Your task to perform on an android device: change notifications settings Image 0: 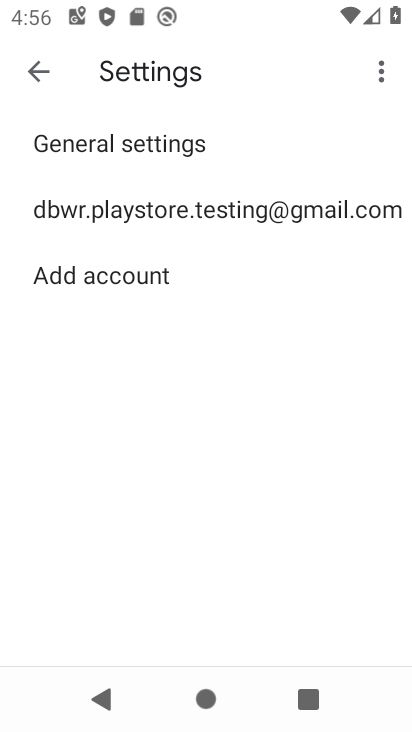
Step 0: press home button
Your task to perform on an android device: change notifications settings Image 1: 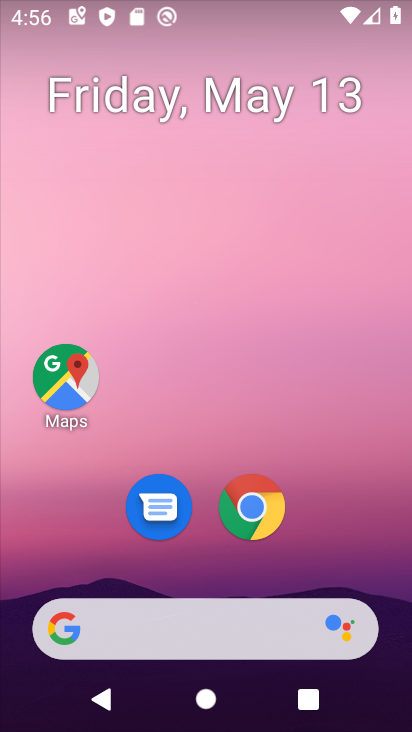
Step 1: drag from (332, 363) to (296, 43)
Your task to perform on an android device: change notifications settings Image 2: 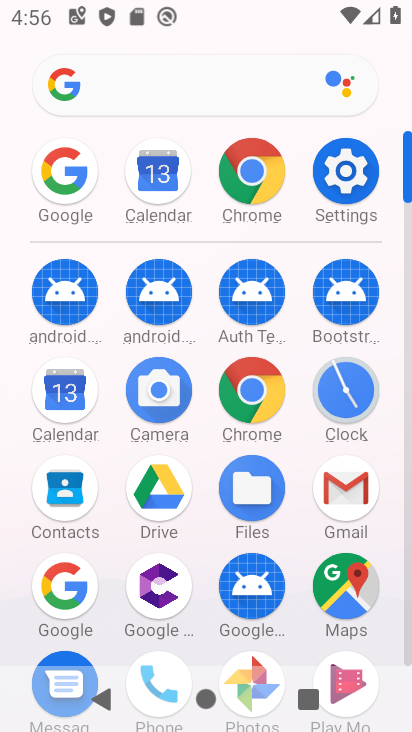
Step 2: click (347, 176)
Your task to perform on an android device: change notifications settings Image 3: 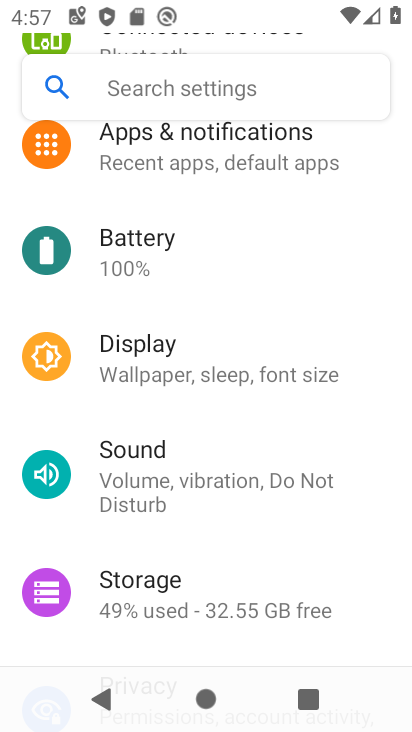
Step 3: click (201, 160)
Your task to perform on an android device: change notifications settings Image 4: 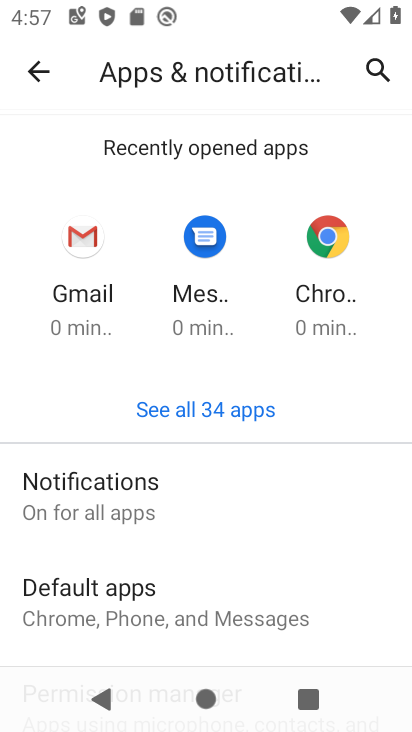
Step 4: click (175, 491)
Your task to perform on an android device: change notifications settings Image 5: 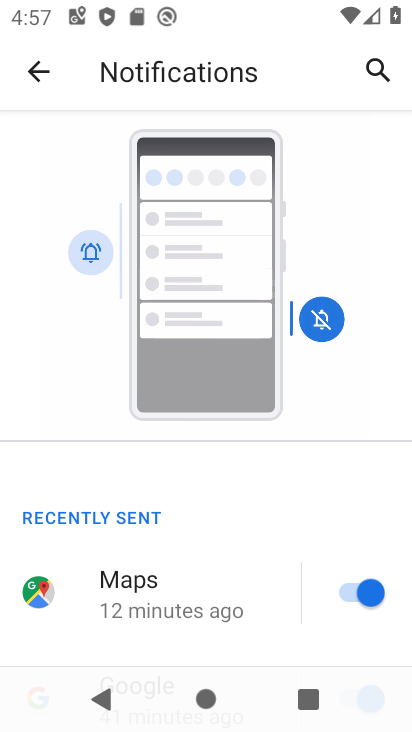
Step 5: drag from (246, 566) to (230, 187)
Your task to perform on an android device: change notifications settings Image 6: 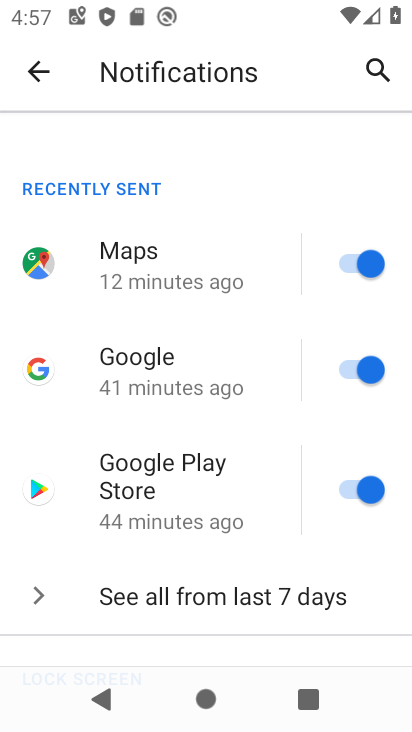
Step 6: click (357, 259)
Your task to perform on an android device: change notifications settings Image 7: 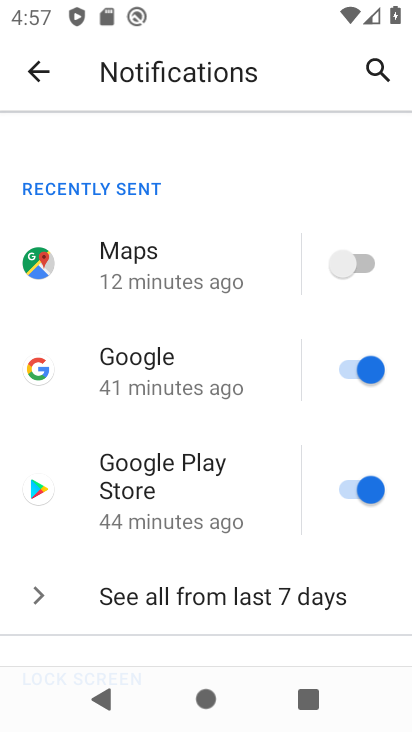
Step 7: click (355, 372)
Your task to perform on an android device: change notifications settings Image 8: 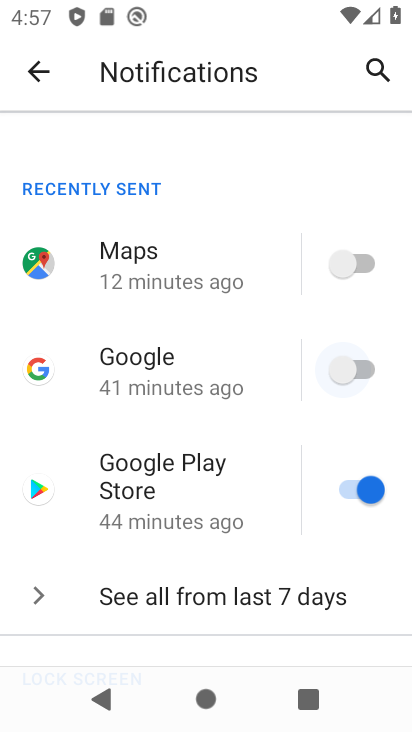
Step 8: click (370, 488)
Your task to perform on an android device: change notifications settings Image 9: 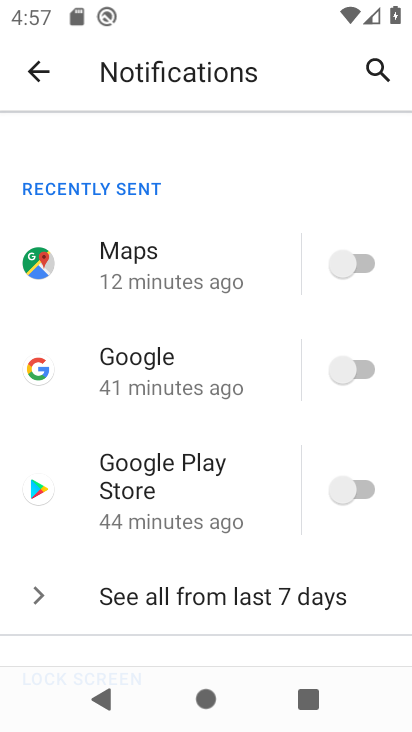
Step 9: task complete